Your task to perform on an android device: open a new tab in the chrome app Image 0: 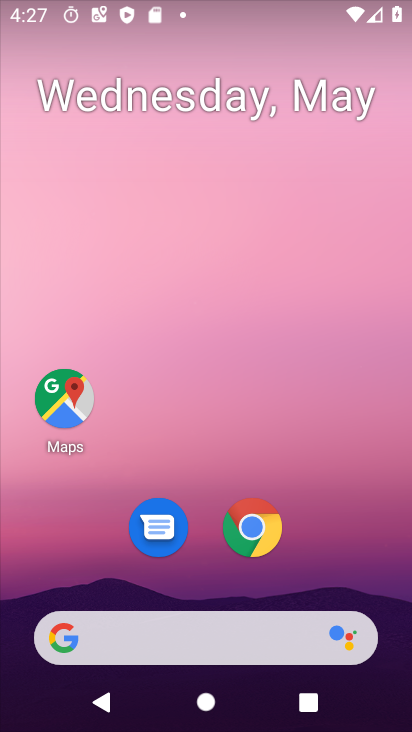
Step 0: click (262, 530)
Your task to perform on an android device: open a new tab in the chrome app Image 1: 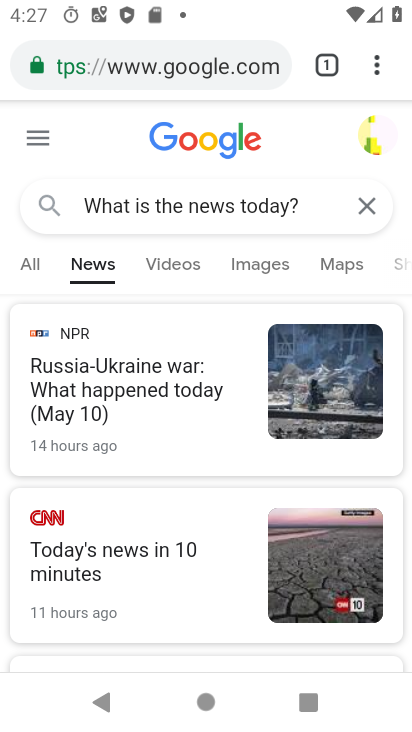
Step 1: task complete